Your task to perform on an android device: Go to battery settings Image 0: 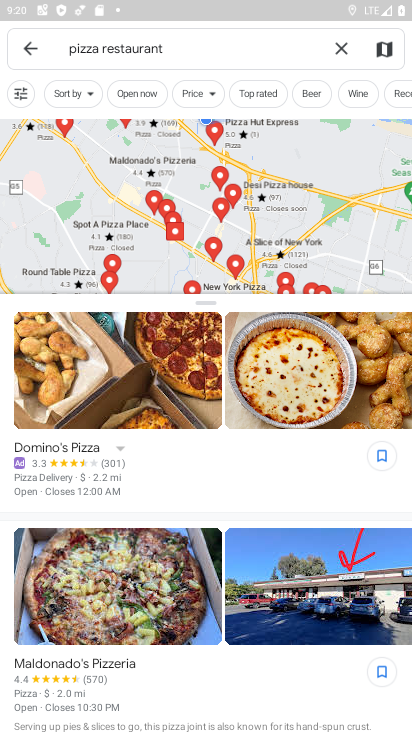
Step 0: press home button
Your task to perform on an android device: Go to battery settings Image 1: 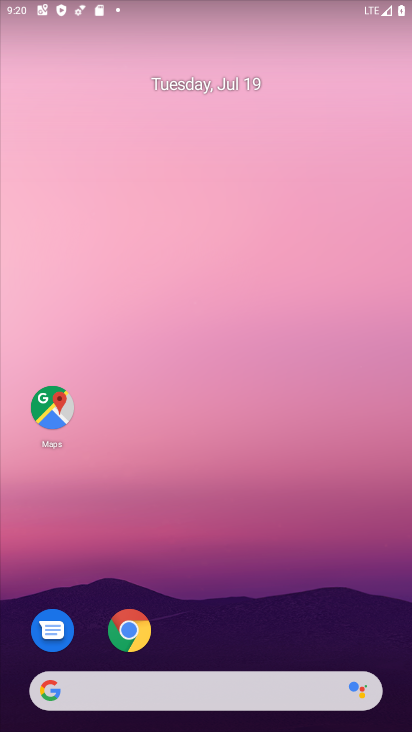
Step 1: drag from (223, 647) to (219, 159)
Your task to perform on an android device: Go to battery settings Image 2: 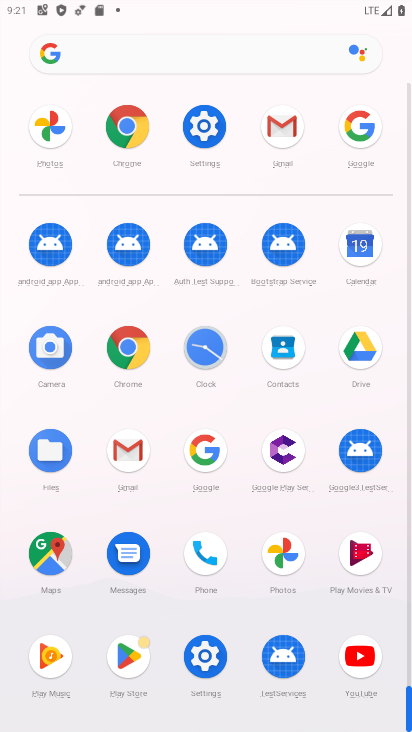
Step 2: click (201, 132)
Your task to perform on an android device: Go to battery settings Image 3: 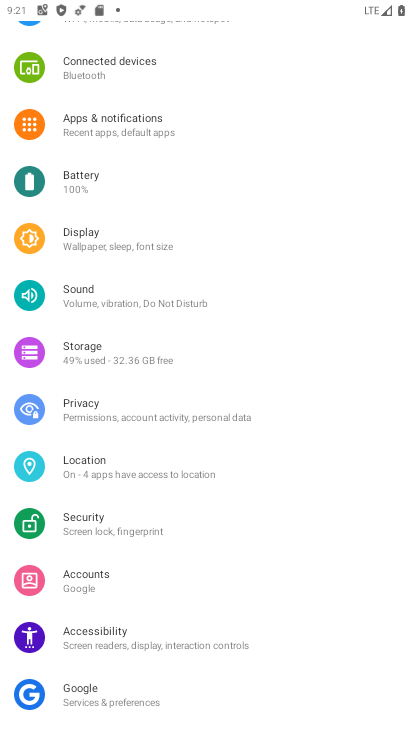
Step 3: drag from (113, 216) to (120, 535)
Your task to perform on an android device: Go to battery settings Image 4: 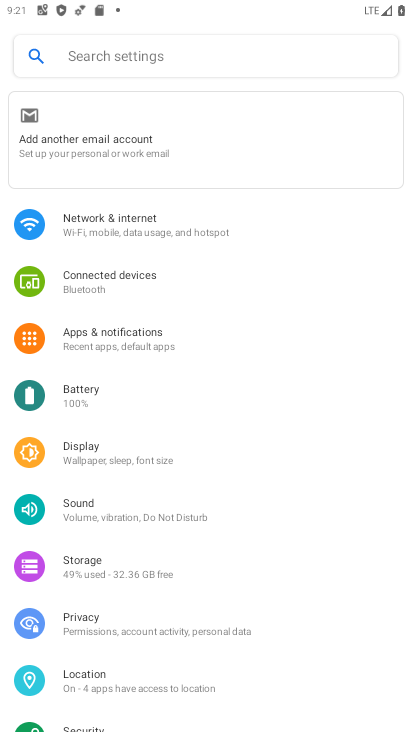
Step 4: click (106, 400)
Your task to perform on an android device: Go to battery settings Image 5: 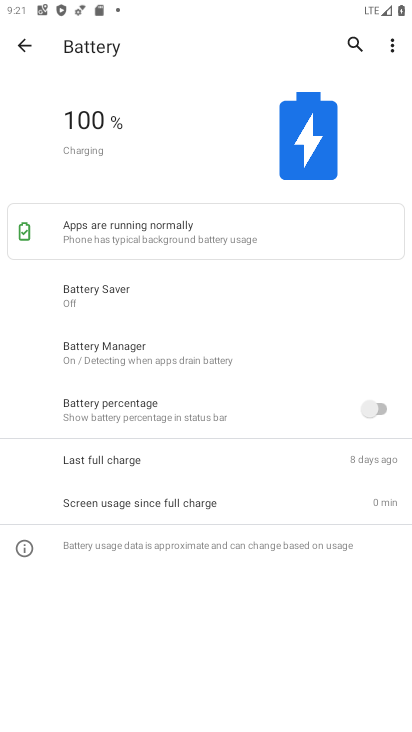
Step 5: task complete